Your task to perform on an android device: Open sound settings Image 0: 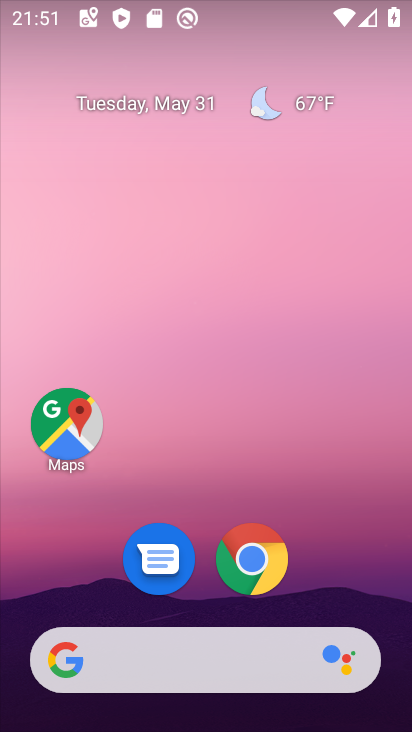
Step 0: drag from (316, 576) to (358, 83)
Your task to perform on an android device: Open sound settings Image 1: 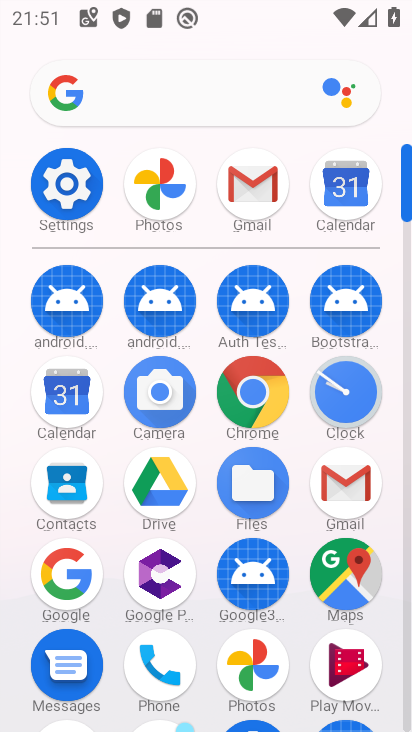
Step 1: click (69, 191)
Your task to perform on an android device: Open sound settings Image 2: 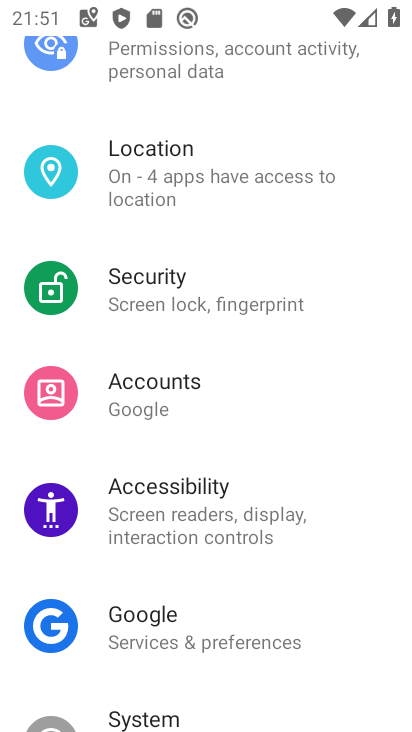
Step 2: drag from (183, 182) to (238, 526)
Your task to perform on an android device: Open sound settings Image 3: 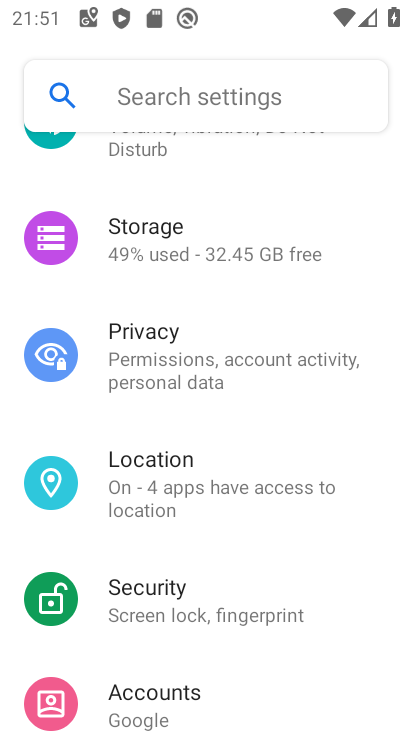
Step 3: drag from (198, 232) to (225, 519)
Your task to perform on an android device: Open sound settings Image 4: 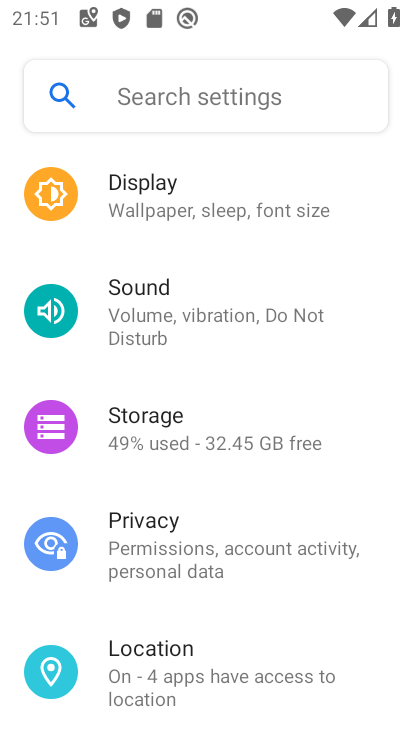
Step 4: click (144, 318)
Your task to perform on an android device: Open sound settings Image 5: 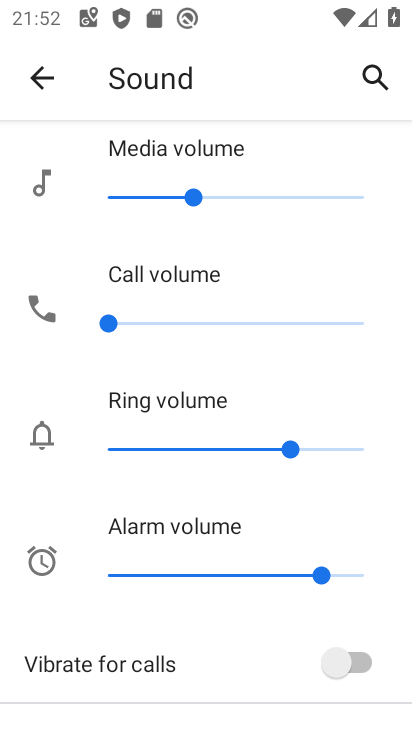
Step 5: task complete